Your task to perform on an android device: Google the capital of Peru Image 0: 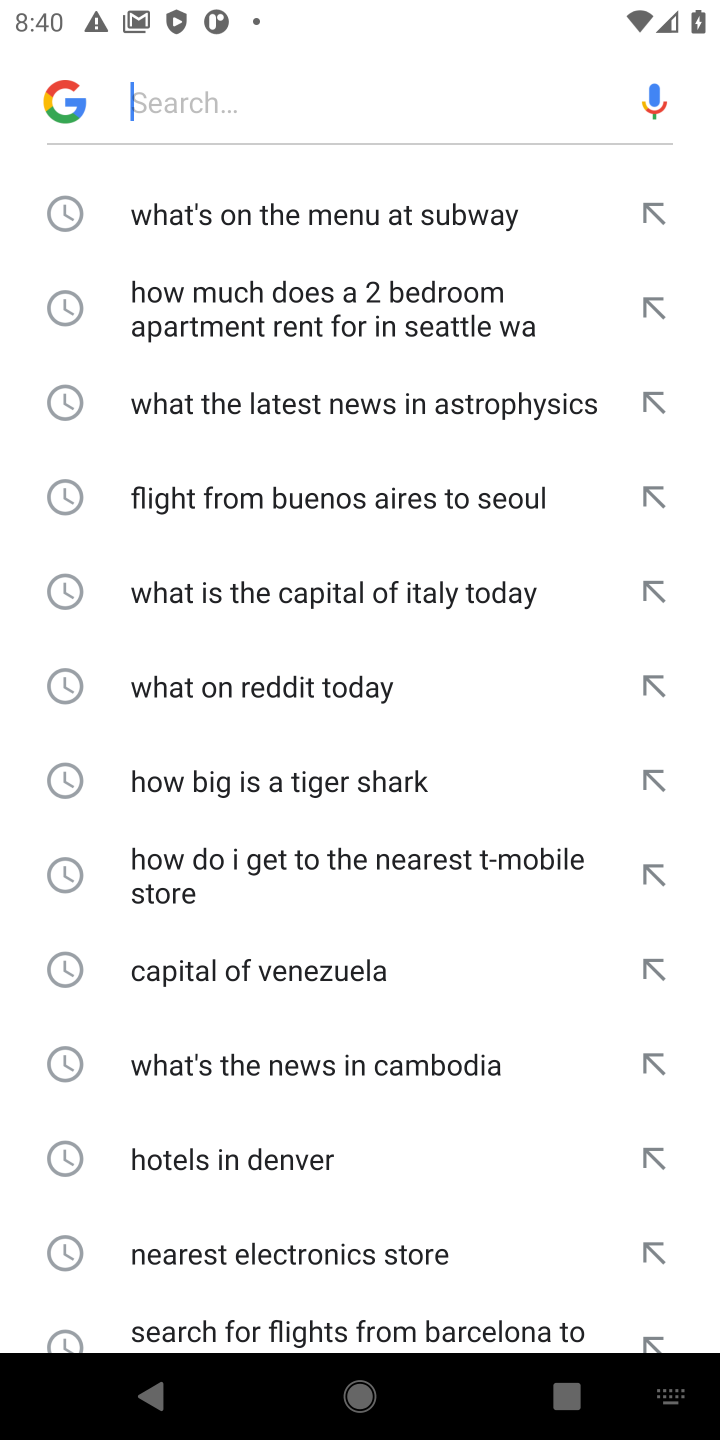
Step 0: type "capital of peru"
Your task to perform on an android device: Google the capital of Peru Image 1: 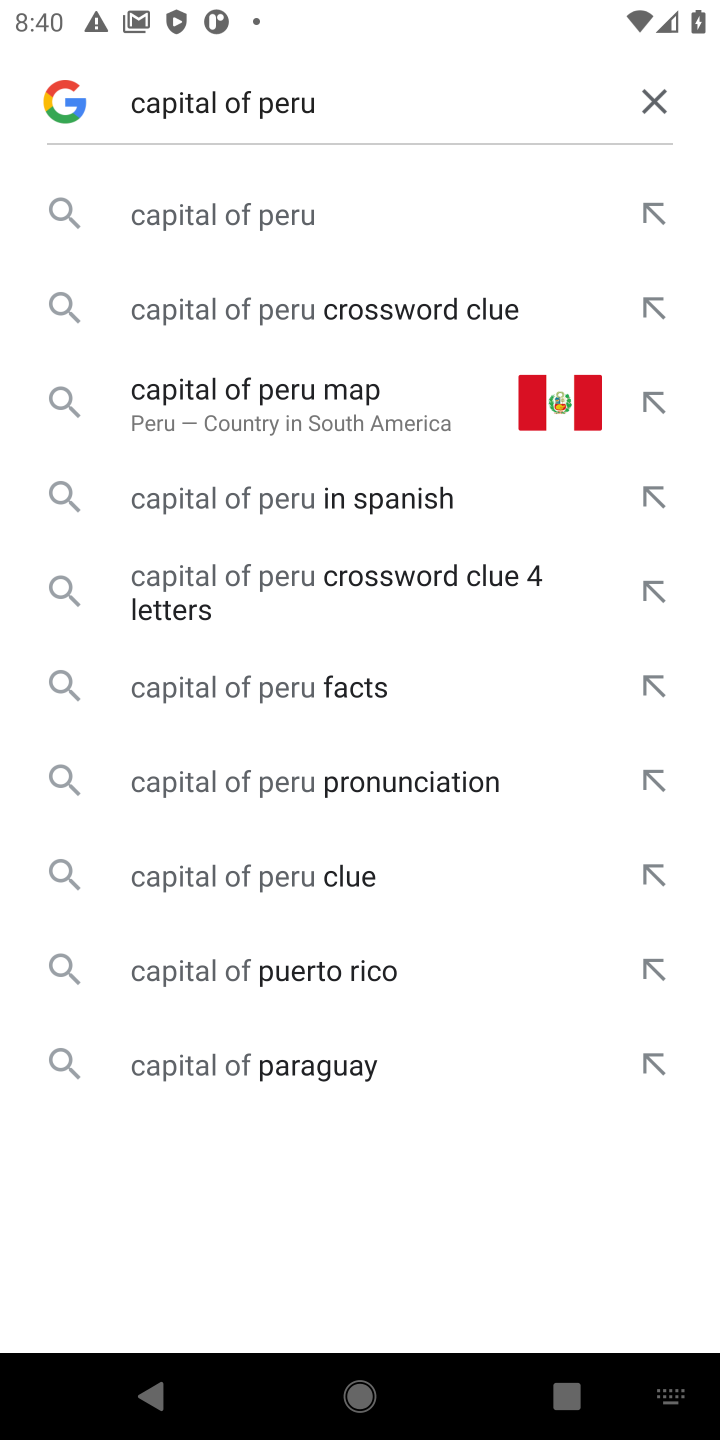
Step 1: click (238, 205)
Your task to perform on an android device: Google the capital of Peru Image 2: 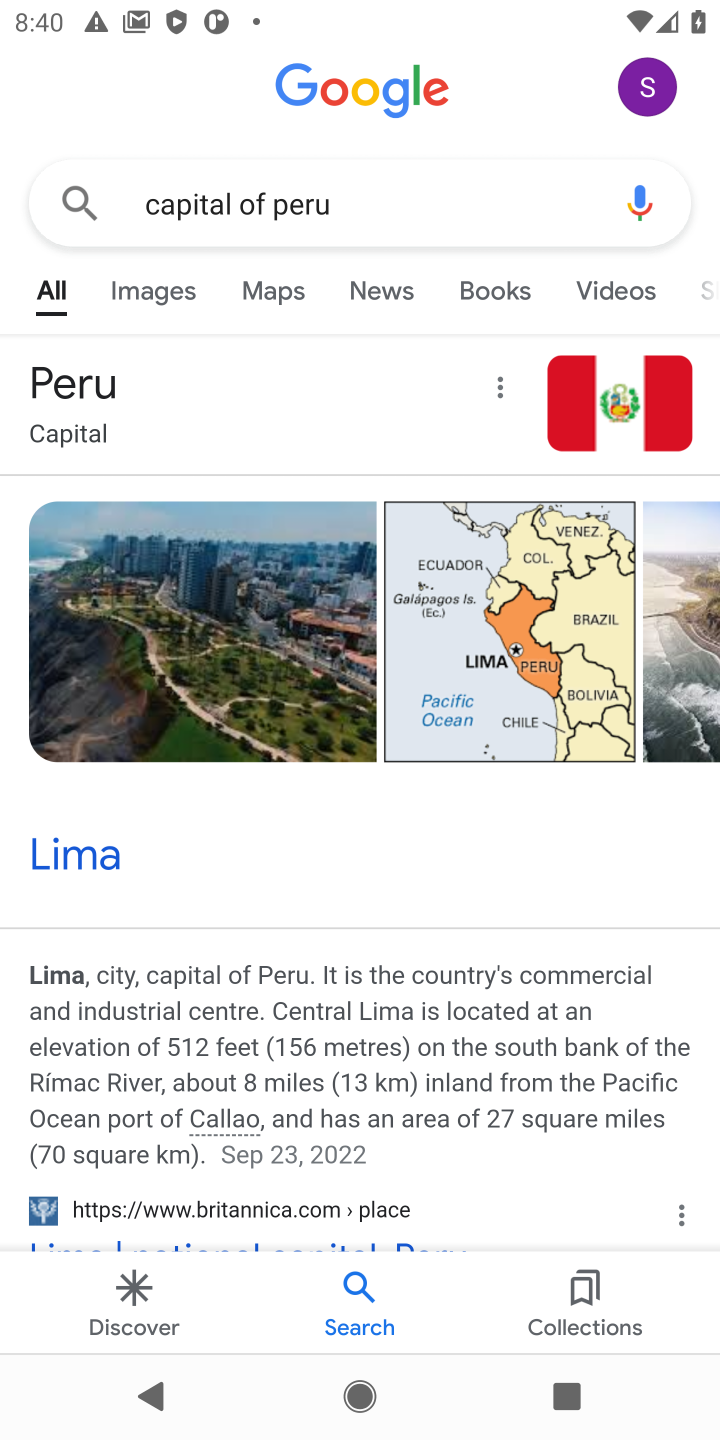
Step 2: task complete